Your task to perform on an android device: open a new tab in the chrome app Image 0: 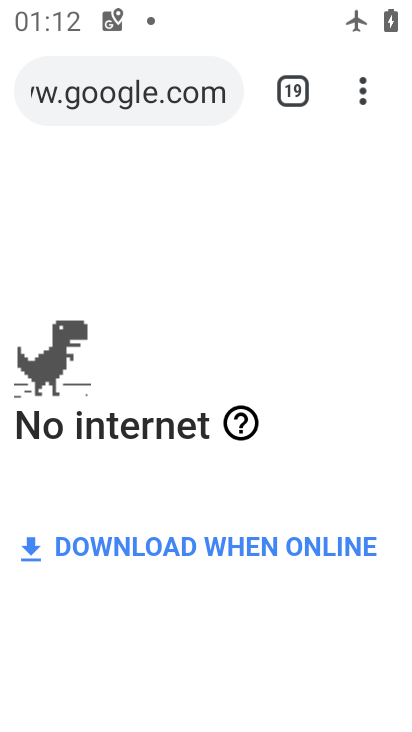
Step 0: click (346, 80)
Your task to perform on an android device: open a new tab in the chrome app Image 1: 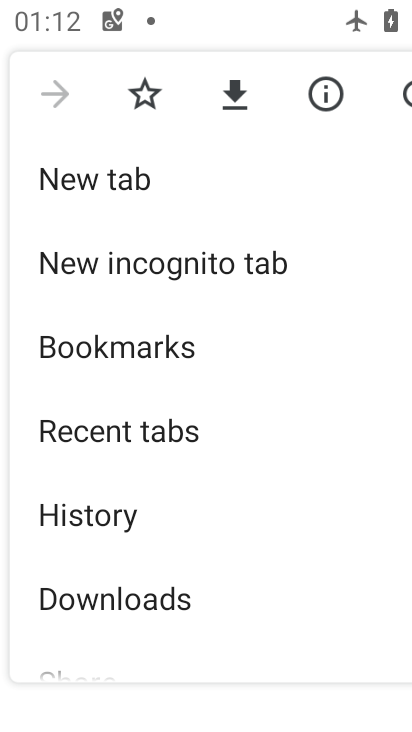
Step 1: click (59, 170)
Your task to perform on an android device: open a new tab in the chrome app Image 2: 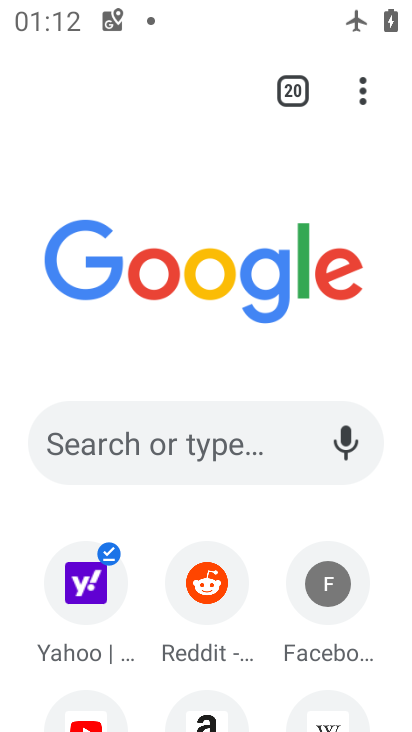
Step 2: task complete